Your task to perform on an android device: Find coffee shops on Maps Image 0: 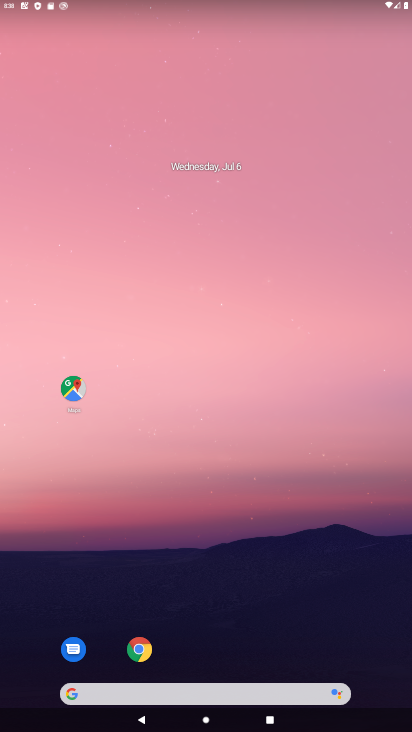
Step 0: press home button
Your task to perform on an android device: Find coffee shops on Maps Image 1: 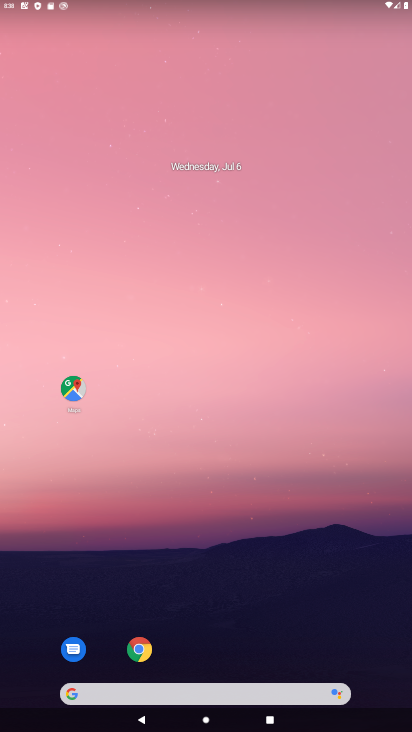
Step 1: drag from (208, 645) to (283, 0)
Your task to perform on an android device: Find coffee shops on Maps Image 2: 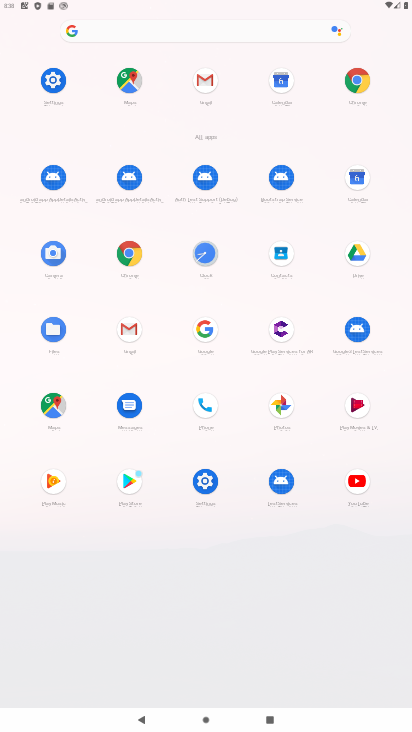
Step 2: click (125, 79)
Your task to perform on an android device: Find coffee shops on Maps Image 3: 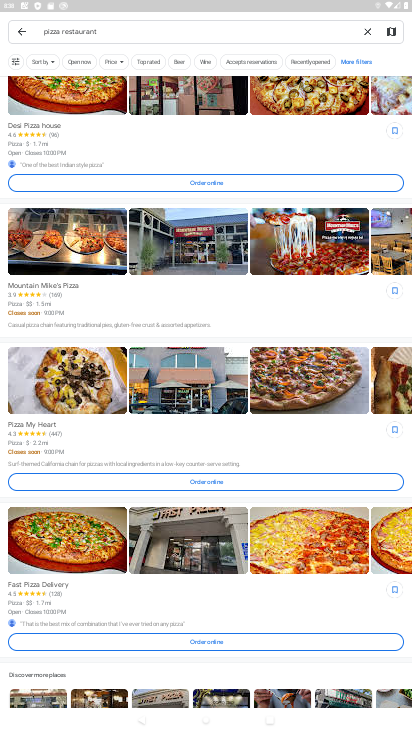
Step 3: click (367, 29)
Your task to perform on an android device: Find coffee shops on Maps Image 4: 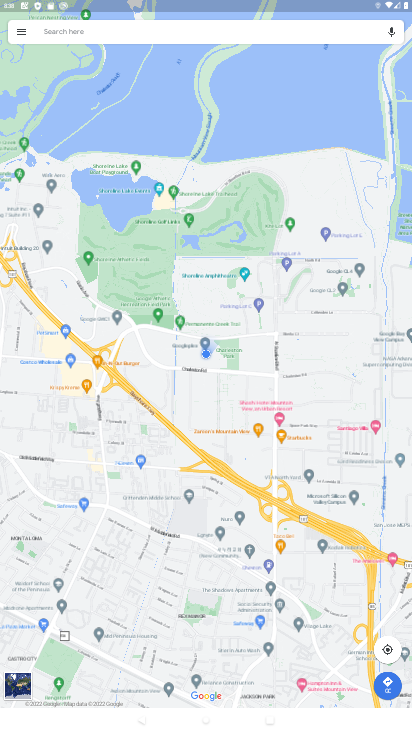
Step 4: click (103, 28)
Your task to perform on an android device: Find coffee shops on Maps Image 5: 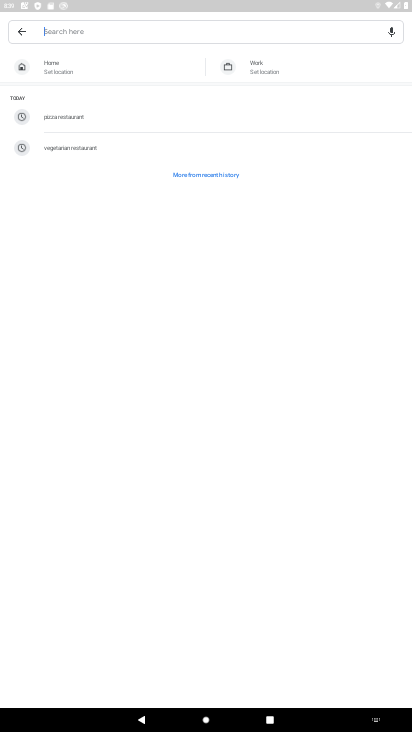
Step 5: type "coffee"
Your task to perform on an android device: Find coffee shops on Maps Image 6: 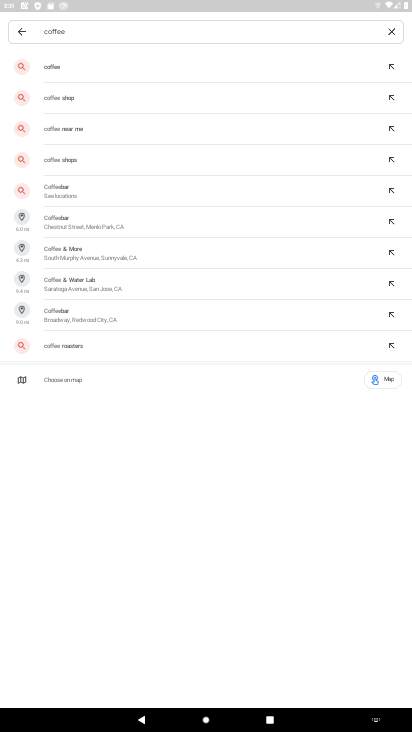
Step 6: click (91, 99)
Your task to perform on an android device: Find coffee shops on Maps Image 7: 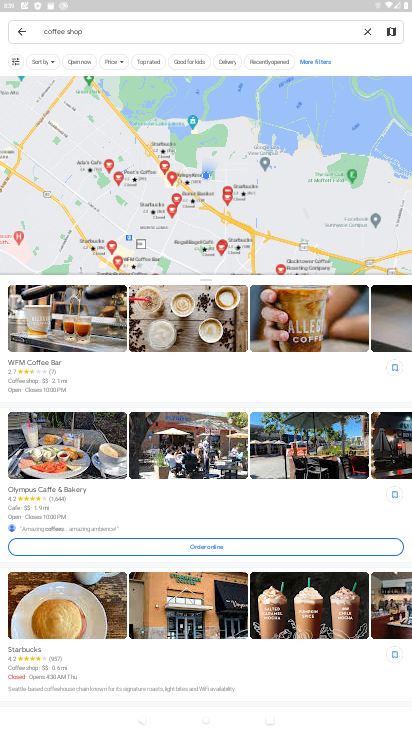
Step 7: task complete